Your task to perform on an android device: Show me popular videos on Youtube Image 0: 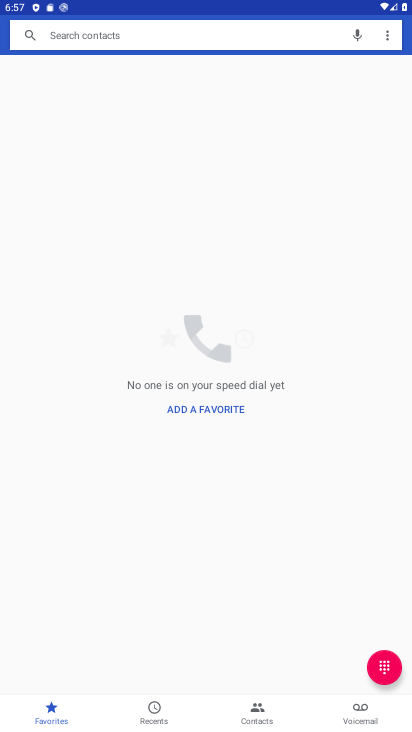
Step 0: press home button
Your task to perform on an android device: Show me popular videos on Youtube Image 1: 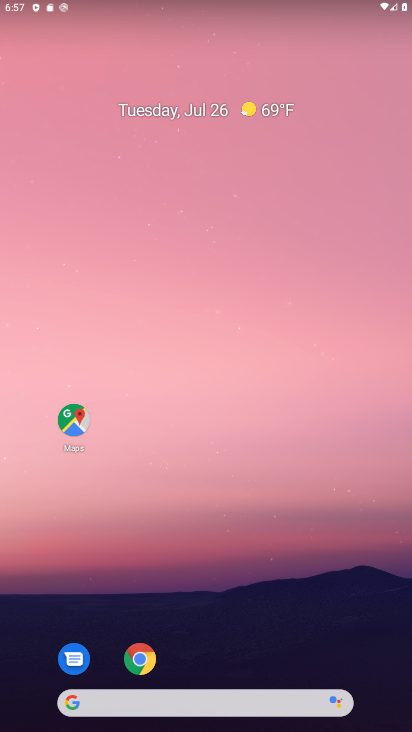
Step 1: drag from (306, 710) to (330, 23)
Your task to perform on an android device: Show me popular videos on Youtube Image 2: 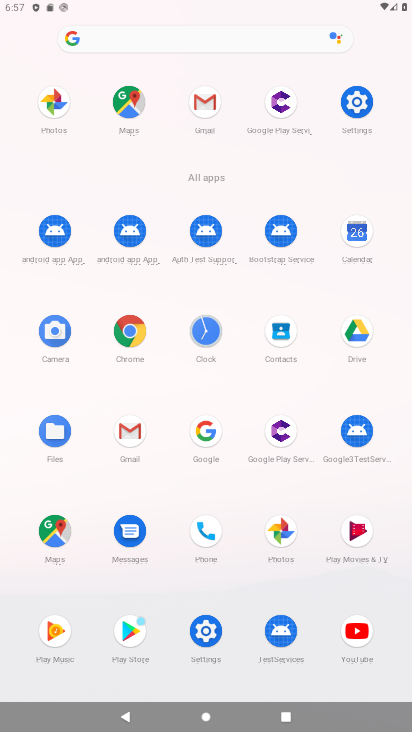
Step 2: click (367, 622)
Your task to perform on an android device: Show me popular videos on Youtube Image 3: 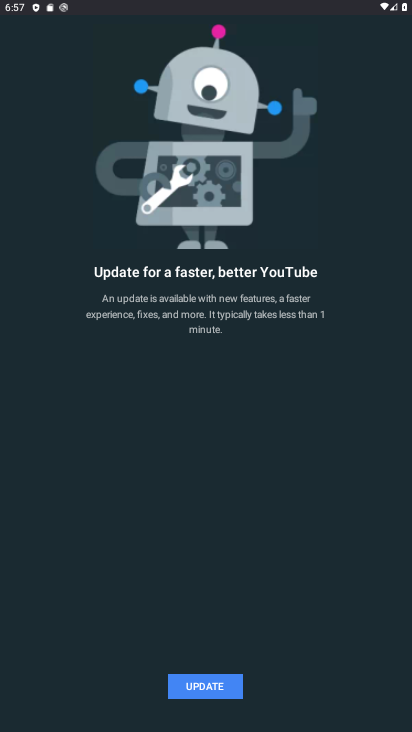
Step 3: click (198, 684)
Your task to perform on an android device: Show me popular videos on Youtube Image 4: 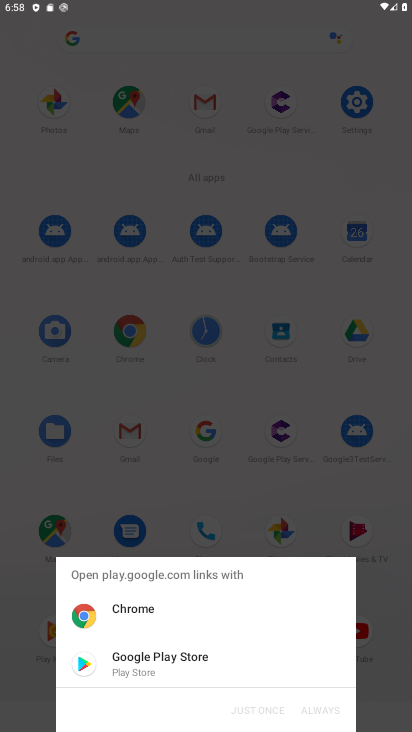
Step 4: click (140, 666)
Your task to perform on an android device: Show me popular videos on Youtube Image 5: 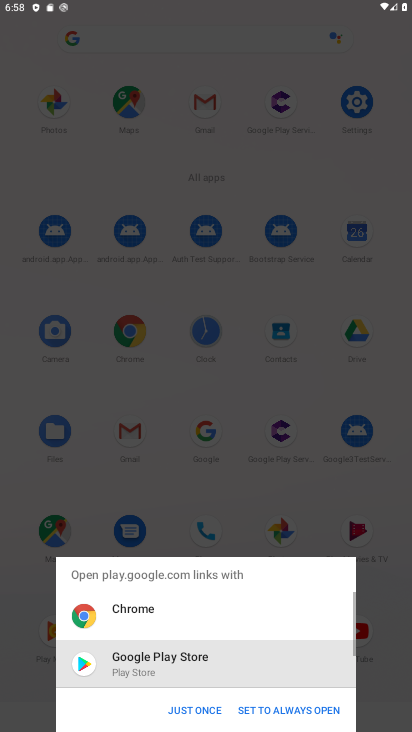
Step 5: click (208, 705)
Your task to perform on an android device: Show me popular videos on Youtube Image 6: 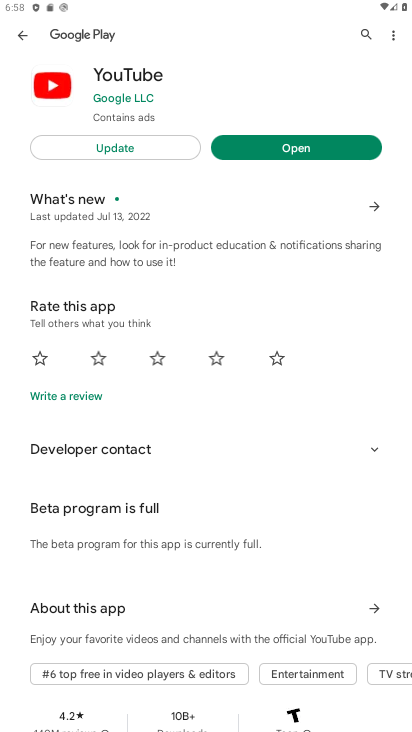
Step 6: click (103, 142)
Your task to perform on an android device: Show me popular videos on Youtube Image 7: 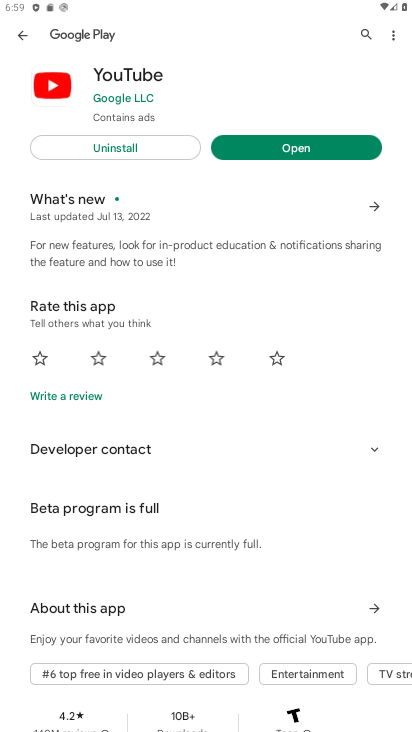
Step 7: click (255, 158)
Your task to perform on an android device: Show me popular videos on Youtube Image 8: 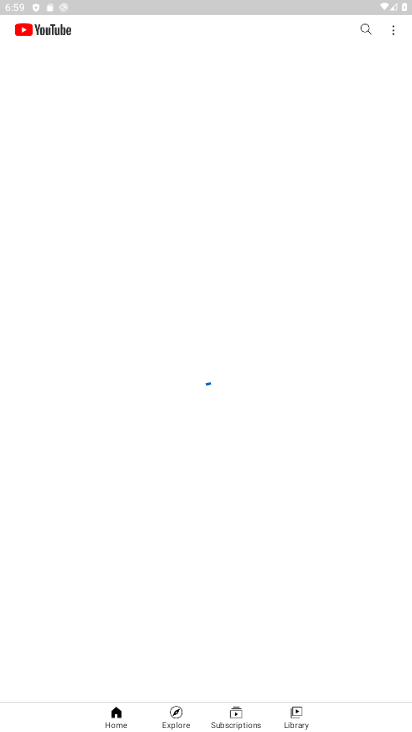
Step 8: click (363, 25)
Your task to perform on an android device: Show me popular videos on Youtube Image 9: 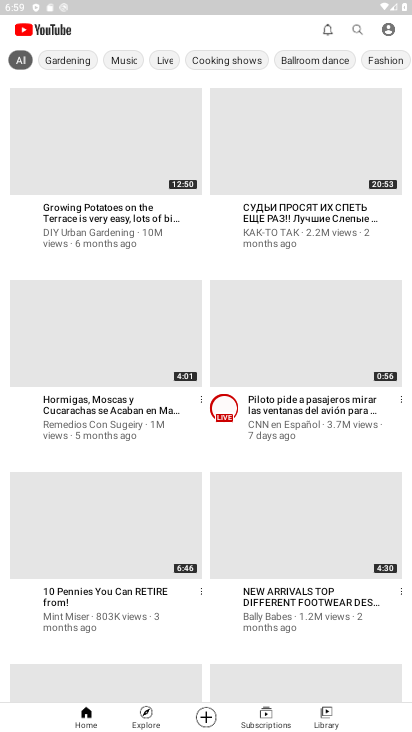
Step 9: click (345, 34)
Your task to perform on an android device: Show me popular videos on Youtube Image 10: 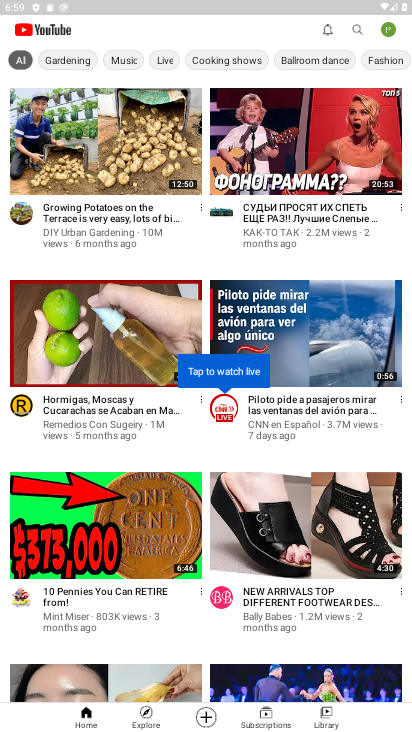
Step 10: click (358, 34)
Your task to perform on an android device: Show me popular videos on Youtube Image 11: 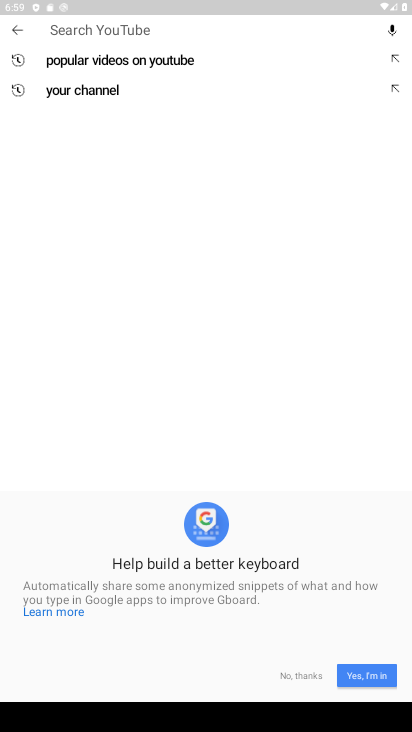
Step 11: click (89, 67)
Your task to perform on an android device: Show me popular videos on Youtube Image 12: 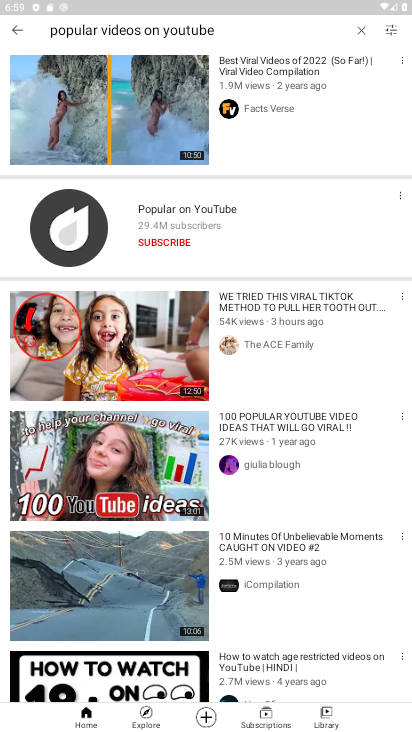
Step 12: task complete